Your task to perform on an android device: change notifications settings Image 0: 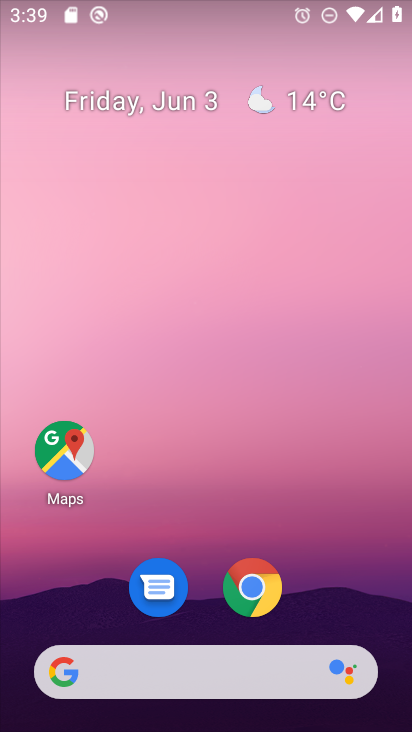
Step 0: drag from (211, 721) to (218, 53)
Your task to perform on an android device: change notifications settings Image 1: 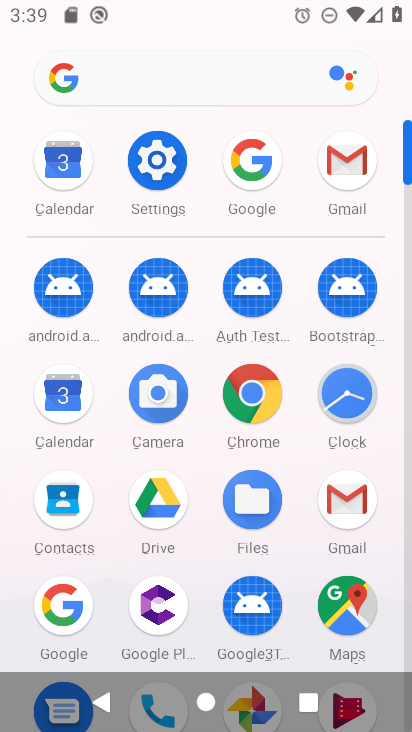
Step 1: click (155, 167)
Your task to perform on an android device: change notifications settings Image 2: 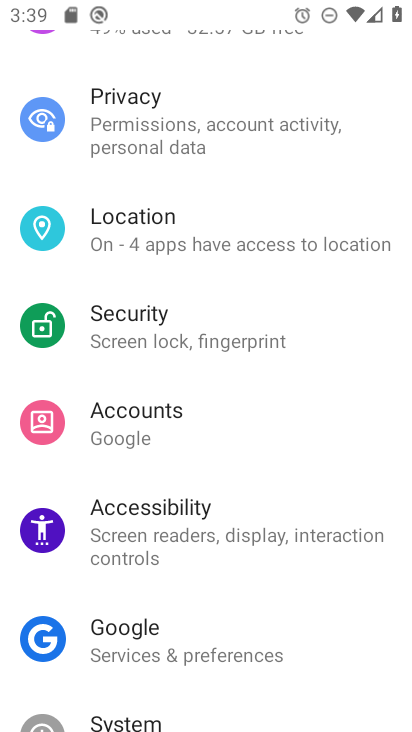
Step 2: drag from (192, 128) to (180, 472)
Your task to perform on an android device: change notifications settings Image 3: 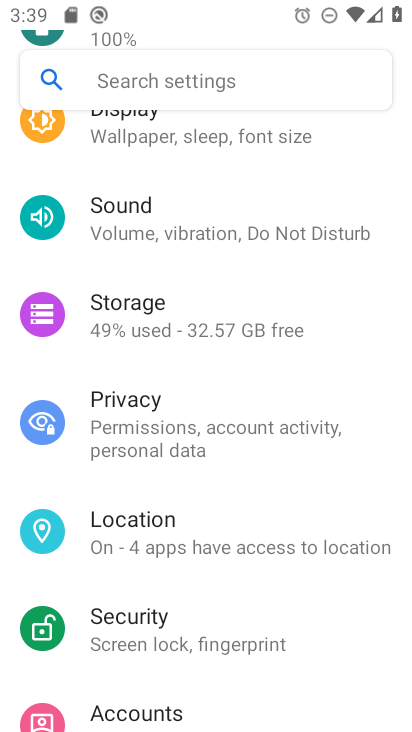
Step 3: drag from (242, 128) to (240, 488)
Your task to perform on an android device: change notifications settings Image 4: 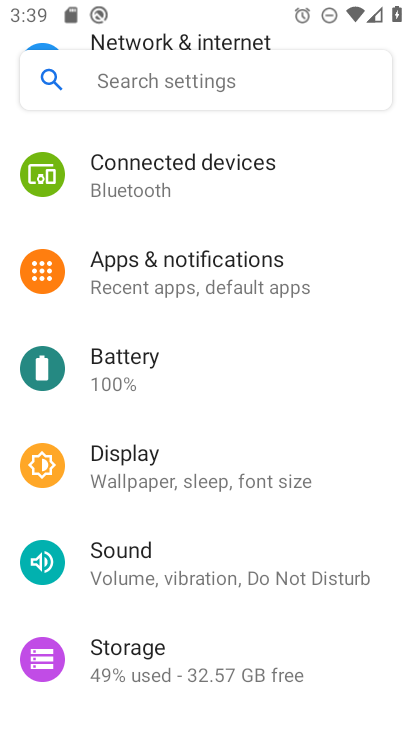
Step 4: click (211, 278)
Your task to perform on an android device: change notifications settings Image 5: 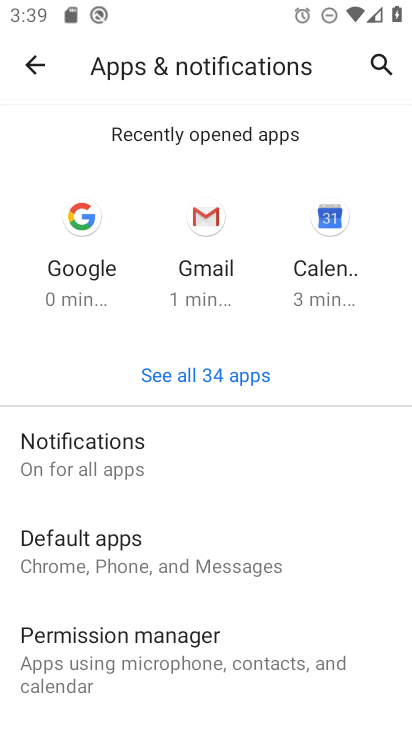
Step 5: click (95, 455)
Your task to perform on an android device: change notifications settings Image 6: 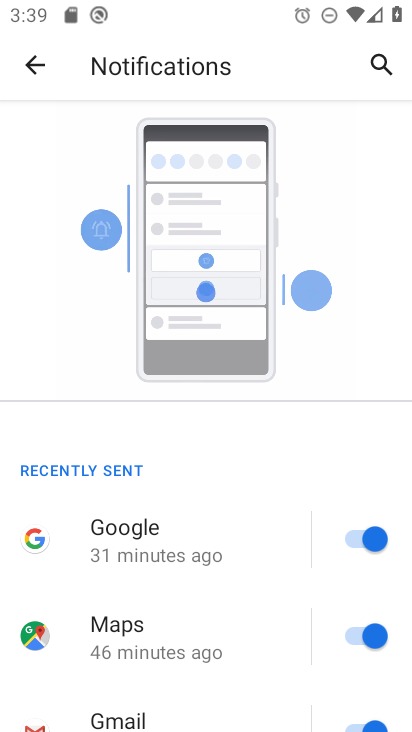
Step 6: drag from (223, 715) to (216, 274)
Your task to perform on an android device: change notifications settings Image 7: 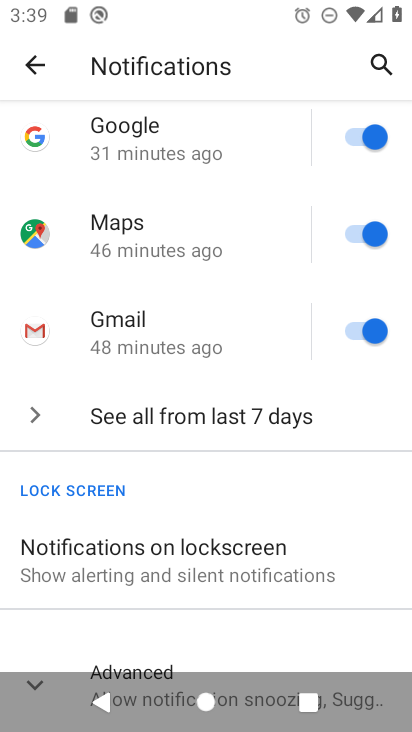
Step 7: drag from (234, 652) to (249, 372)
Your task to perform on an android device: change notifications settings Image 8: 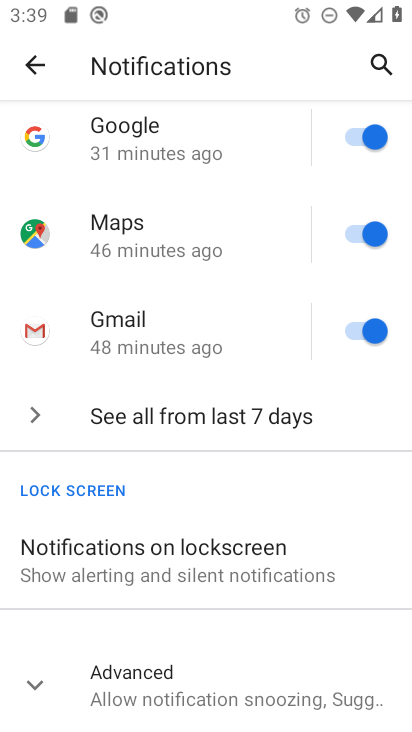
Step 8: click (155, 656)
Your task to perform on an android device: change notifications settings Image 9: 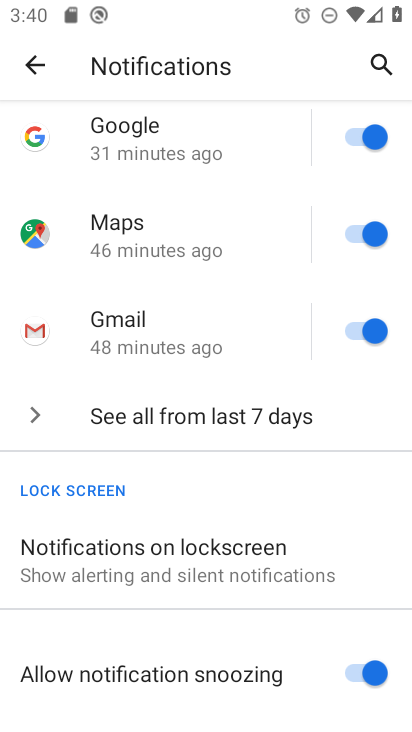
Step 9: drag from (233, 689) to (241, 428)
Your task to perform on an android device: change notifications settings Image 10: 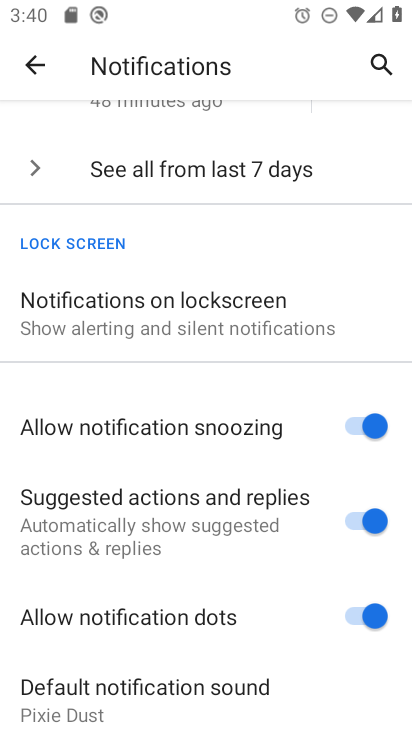
Step 10: click (346, 426)
Your task to perform on an android device: change notifications settings Image 11: 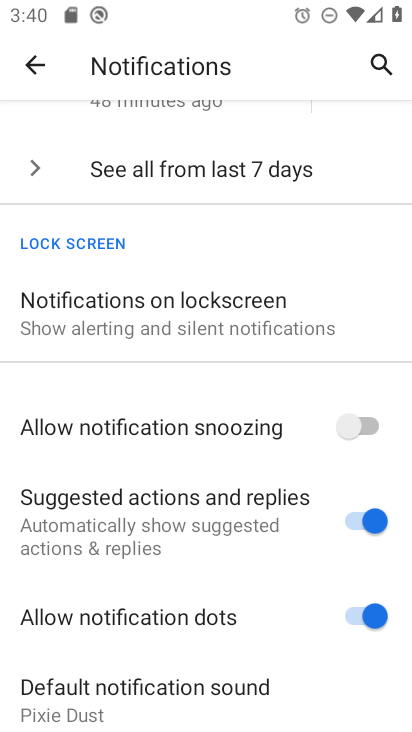
Step 11: task complete